Your task to perform on an android device: read, delete, or share a saved page in the chrome app Image 0: 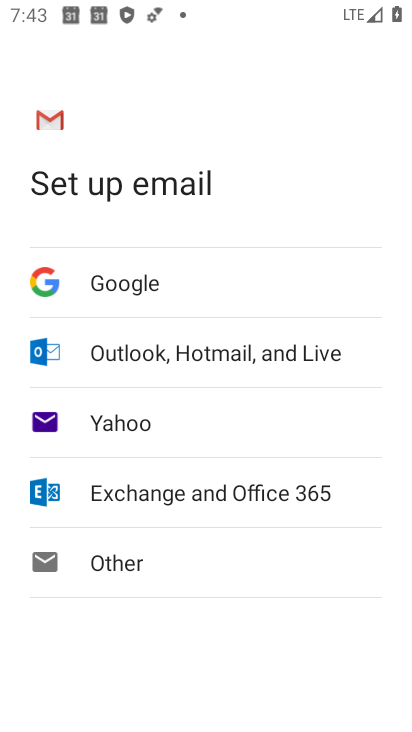
Step 0: drag from (368, 608) to (357, 312)
Your task to perform on an android device: read, delete, or share a saved page in the chrome app Image 1: 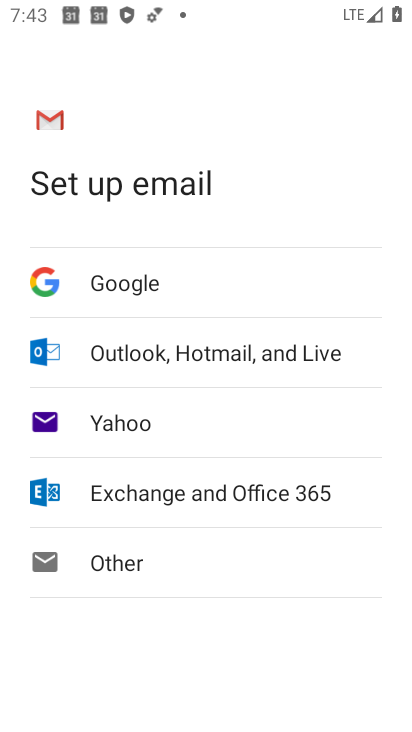
Step 1: press home button
Your task to perform on an android device: read, delete, or share a saved page in the chrome app Image 2: 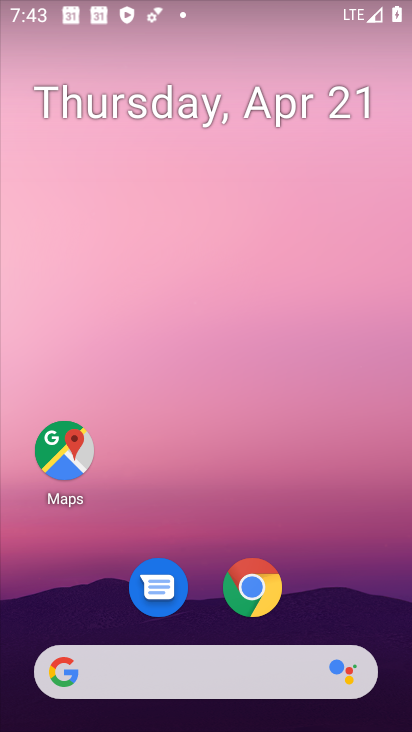
Step 2: click (249, 581)
Your task to perform on an android device: read, delete, or share a saved page in the chrome app Image 3: 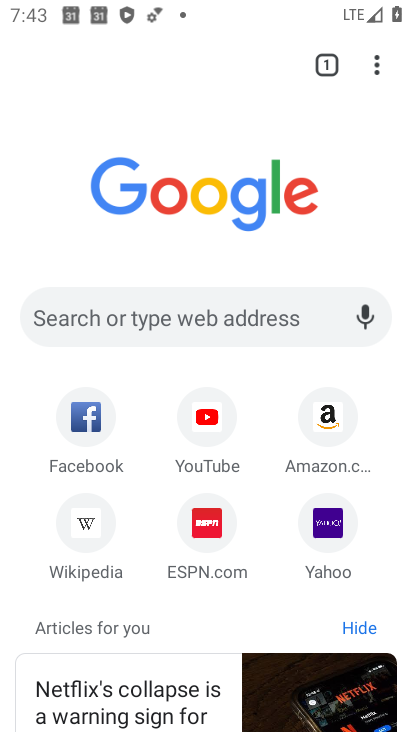
Step 3: click (375, 64)
Your task to perform on an android device: read, delete, or share a saved page in the chrome app Image 4: 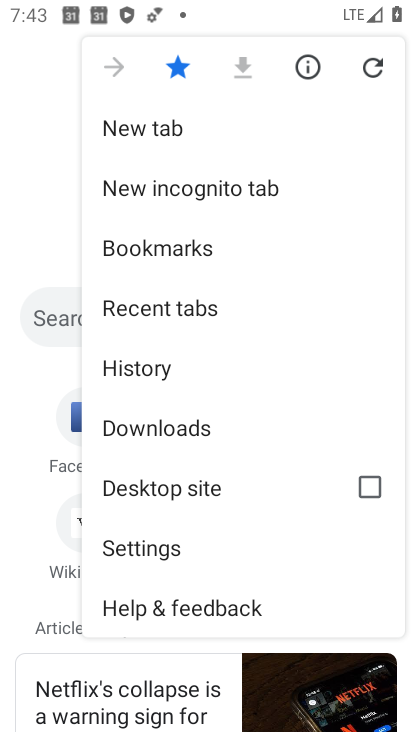
Step 4: click (123, 414)
Your task to perform on an android device: read, delete, or share a saved page in the chrome app Image 5: 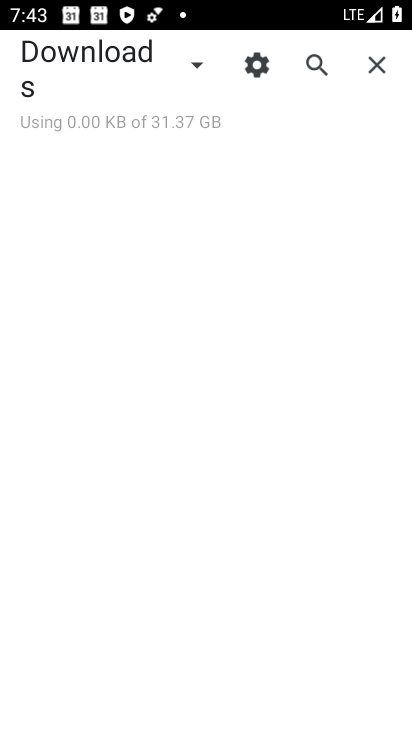
Step 5: task complete